Your task to perform on an android device: open a new tab in the chrome app Image 0: 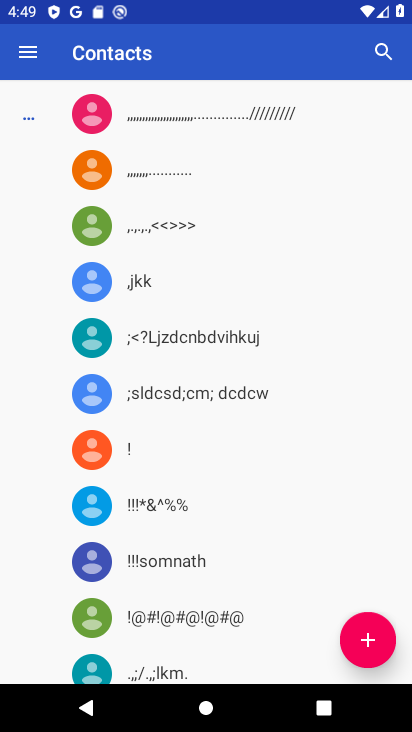
Step 0: press home button
Your task to perform on an android device: open a new tab in the chrome app Image 1: 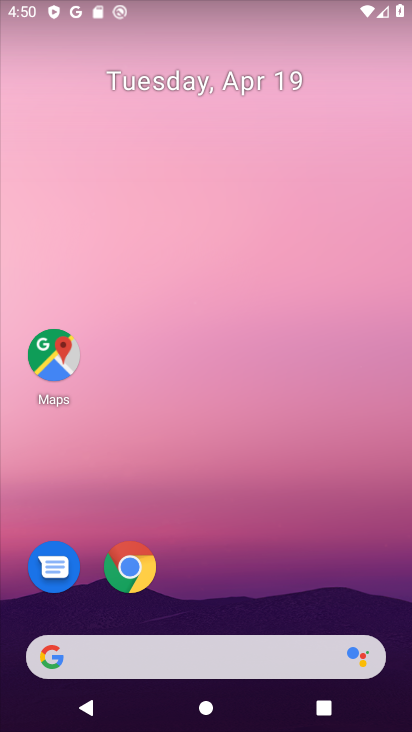
Step 1: drag from (269, 648) to (286, 64)
Your task to perform on an android device: open a new tab in the chrome app Image 2: 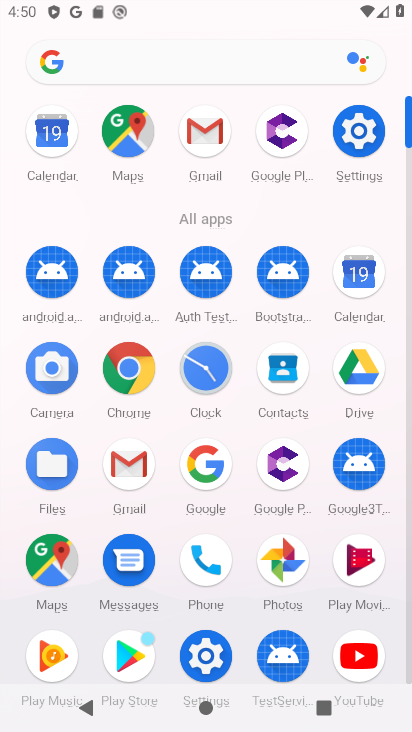
Step 2: click (119, 373)
Your task to perform on an android device: open a new tab in the chrome app Image 3: 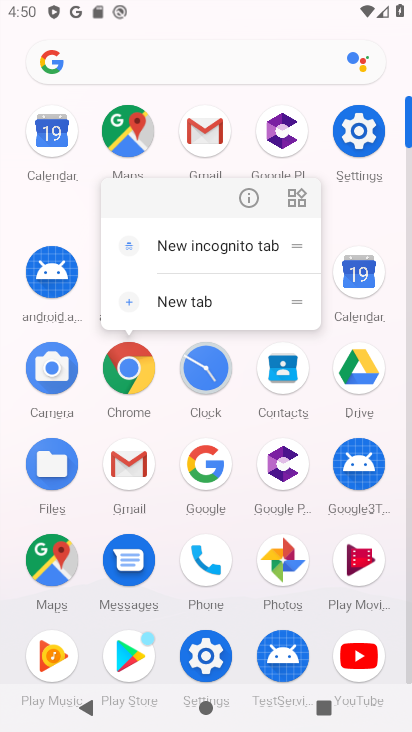
Step 3: click (119, 373)
Your task to perform on an android device: open a new tab in the chrome app Image 4: 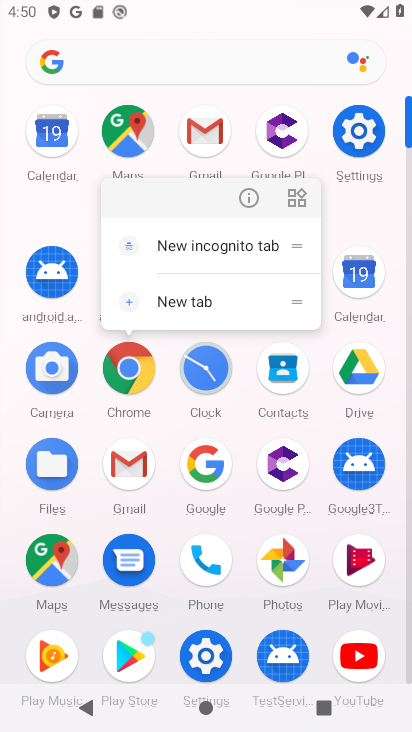
Step 4: click (141, 384)
Your task to perform on an android device: open a new tab in the chrome app Image 5: 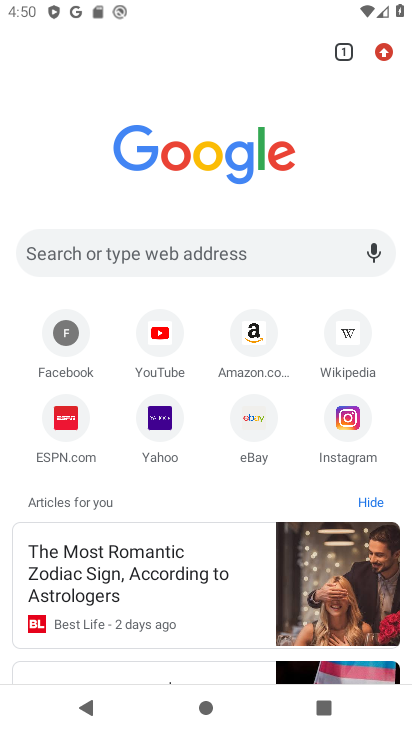
Step 5: click (381, 48)
Your task to perform on an android device: open a new tab in the chrome app Image 6: 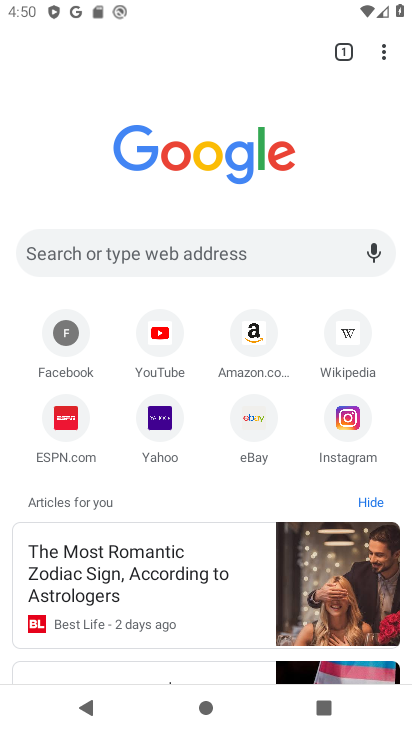
Step 6: click (381, 48)
Your task to perform on an android device: open a new tab in the chrome app Image 7: 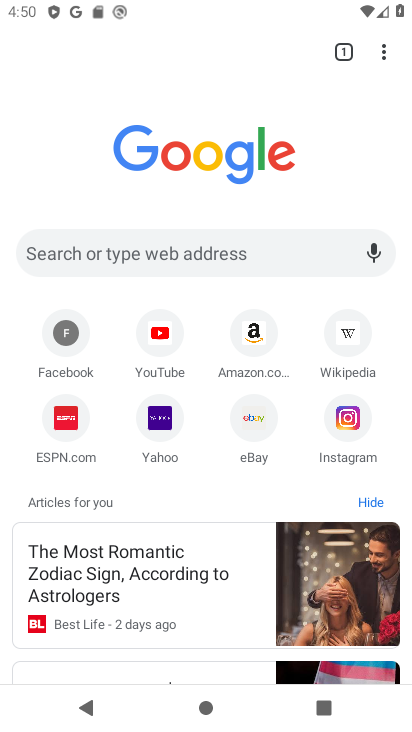
Step 7: click (373, 52)
Your task to perform on an android device: open a new tab in the chrome app Image 8: 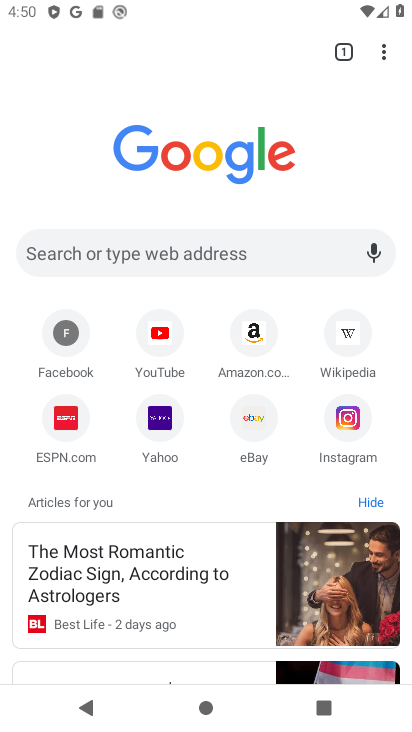
Step 8: click (378, 52)
Your task to perform on an android device: open a new tab in the chrome app Image 9: 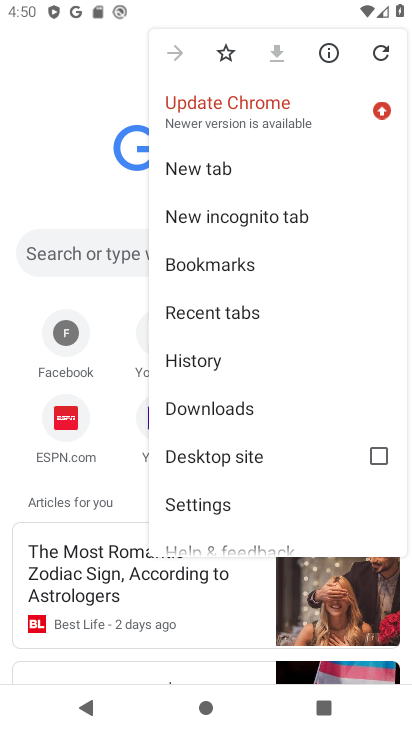
Step 9: click (240, 161)
Your task to perform on an android device: open a new tab in the chrome app Image 10: 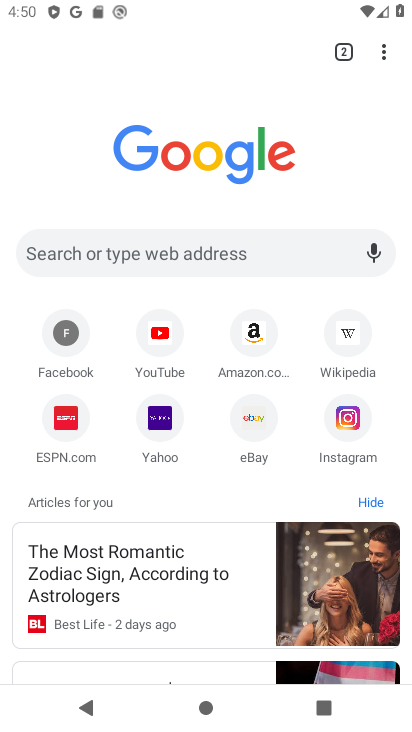
Step 10: task complete